Your task to perform on an android device: turn on sleep mode Image 0: 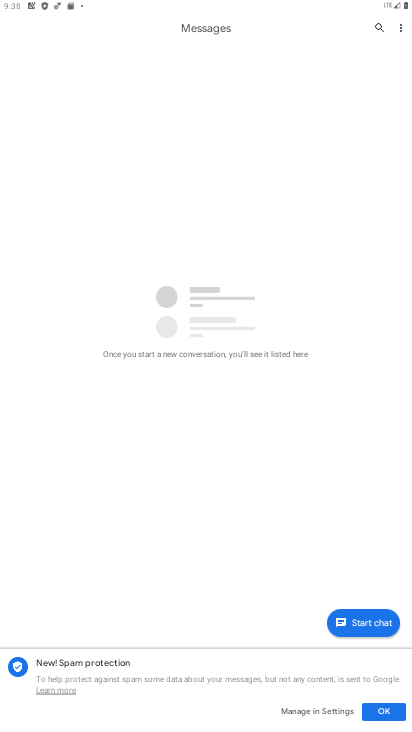
Step 0: drag from (106, 505) to (195, 318)
Your task to perform on an android device: turn on sleep mode Image 1: 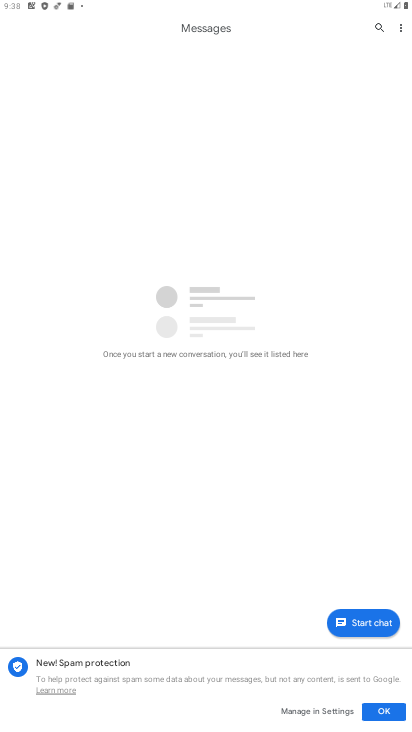
Step 1: press home button
Your task to perform on an android device: turn on sleep mode Image 2: 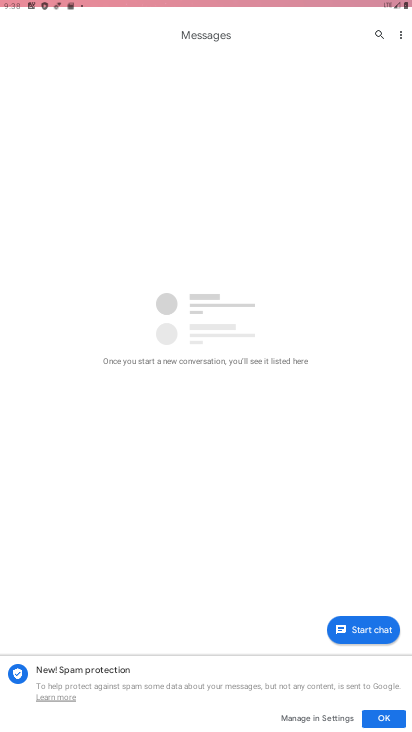
Step 2: drag from (110, 609) to (153, 333)
Your task to perform on an android device: turn on sleep mode Image 3: 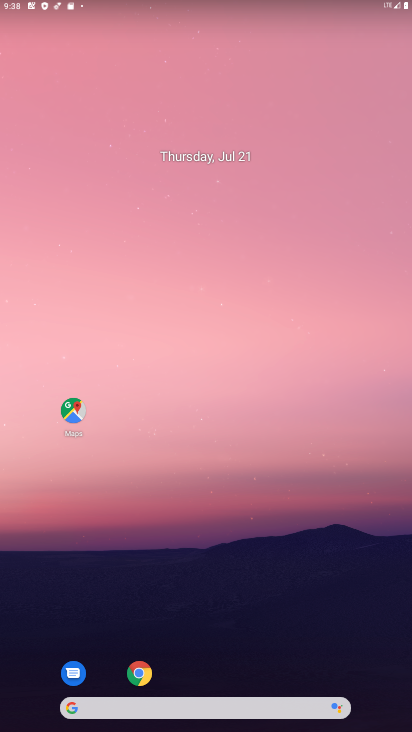
Step 3: click (203, 443)
Your task to perform on an android device: turn on sleep mode Image 4: 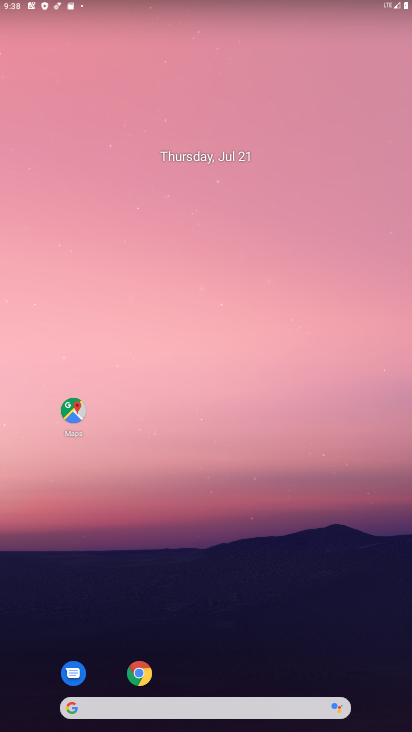
Step 4: drag from (123, 511) to (127, 98)
Your task to perform on an android device: turn on sleep mode Image 5: 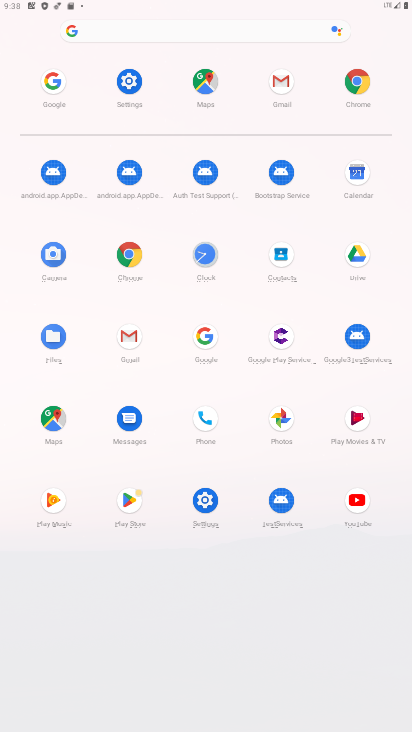
Step 5: click (204, 496)
Your task to perform on an android device: turn on sleep mode Image 6: 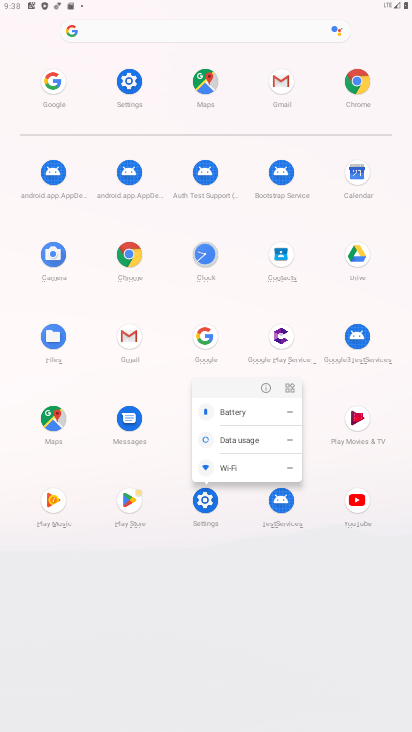
Step 6: click (264, 389)
Your task to perform on an android device: turn on sleep mode Image 7: 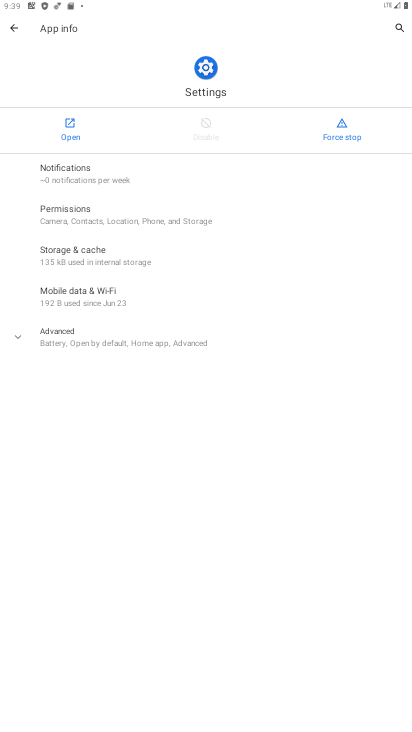
Step 7: click (71, 129)
Your task to perform on an android device: turn on sleep mode Image 8: 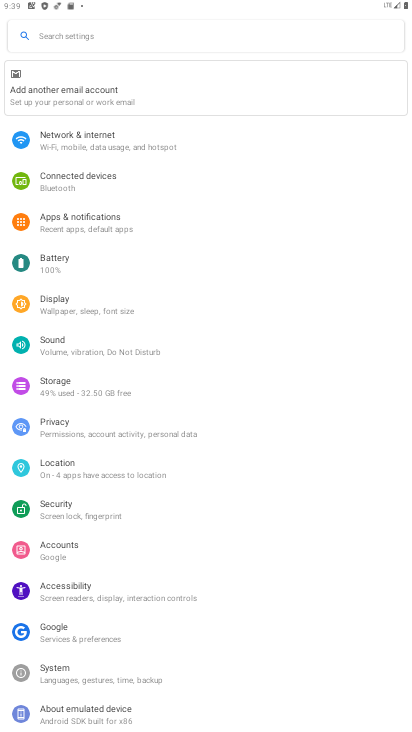
Step 8: click (62, 304)
Your task to perform on an android device: turn on sleep mode Image 9: 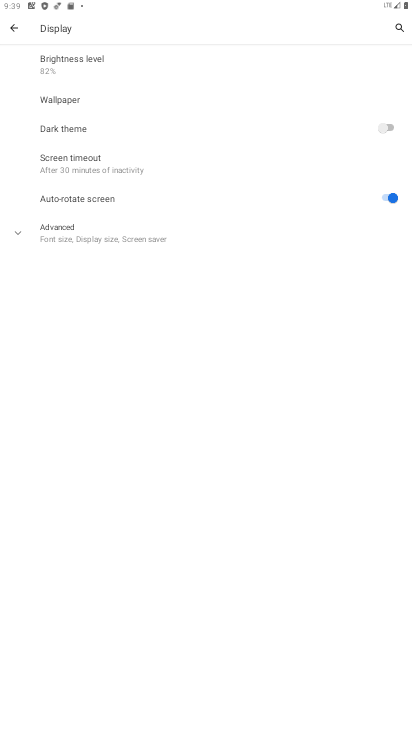
Step 9: click (175, 161)
Your task to perform on an android device: turn on sleep mode Image 10: 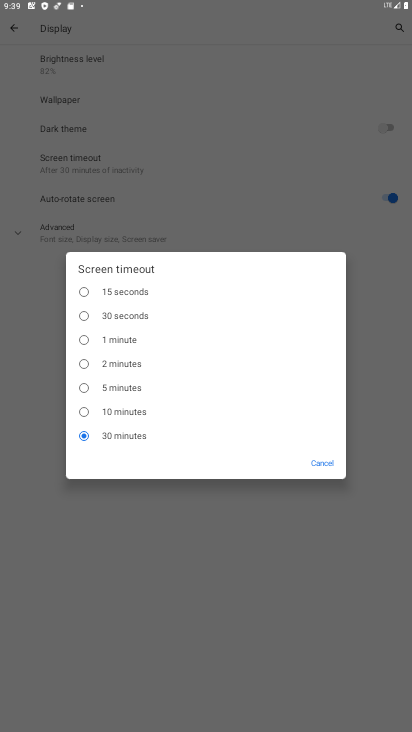
Step 10: click (86, 296)
Your task to perform on an android device: turn on sleep mode Image 11: 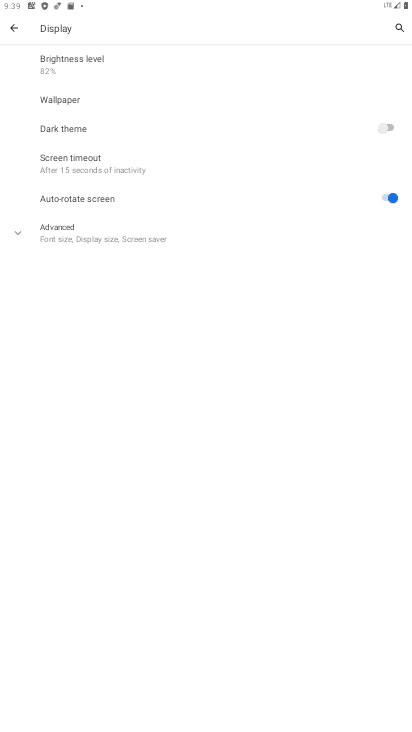
Step 11: task complete